Your task to perform on an android device: move a message to another label in the gmail app Image 0: 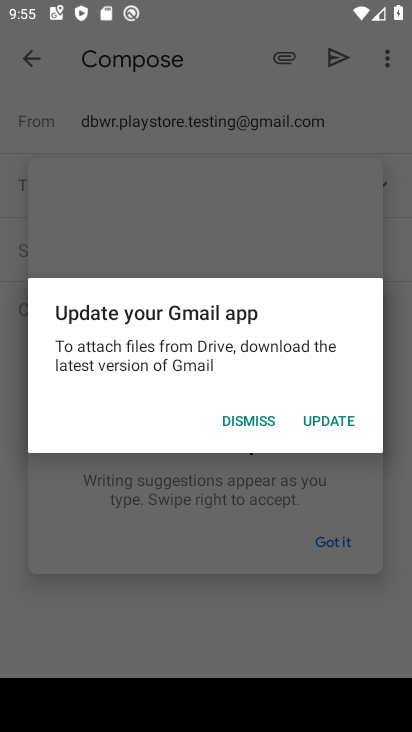
Step 0: press home button
Your task to perform on an android device: move a message to another label in the gmail app Image 1: 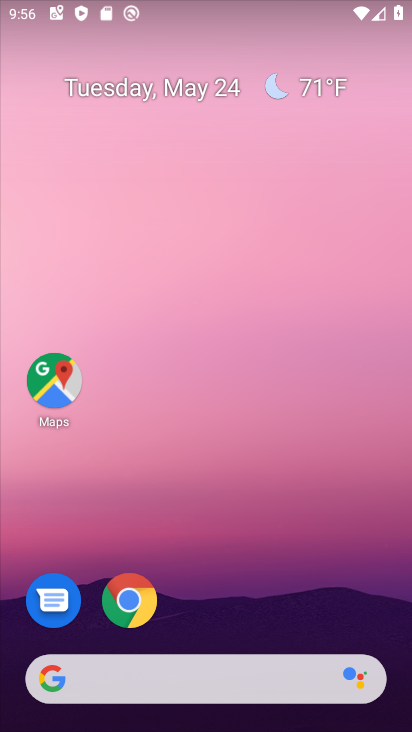
Step 1: drag from (205, 620) to (218, 204)
Your task to perform on an android device: move a message to another label in the gmail app Image 2: 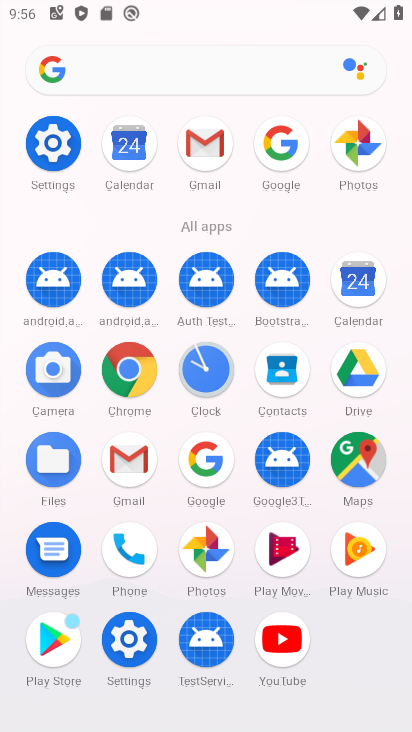
Step 2: click (204, 181)
Your task to perform on an android device: move a message to another label in the gmail app Image 3: 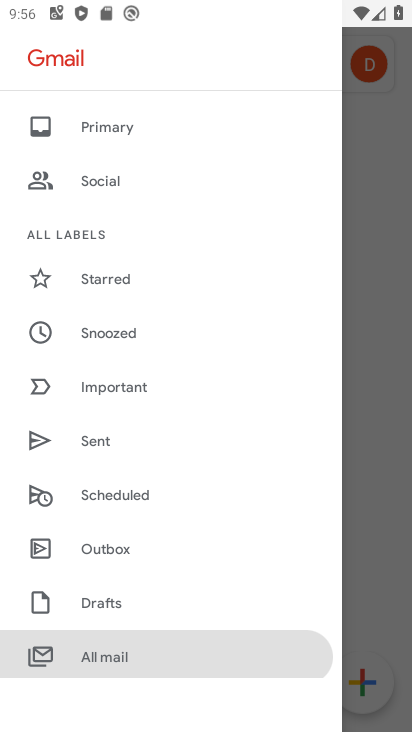
Step 3: click (91, 647)
Your task to perform on an android device: move a message to another label in the gmail app Image 4: 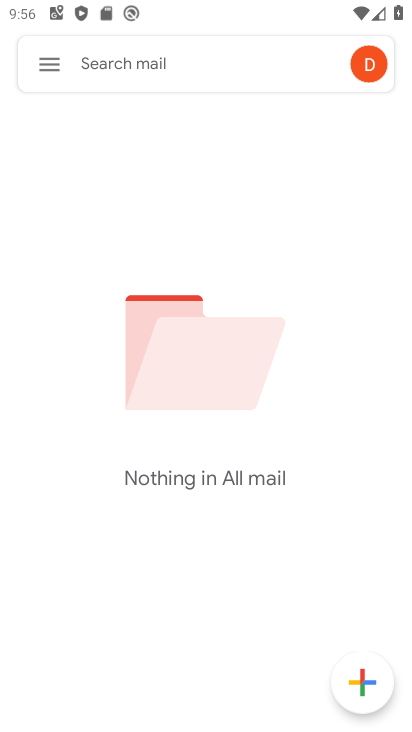
Step 4: click (128, 665)
Your task to perform on an android device: move a message to another label in the gmail app Image 5: 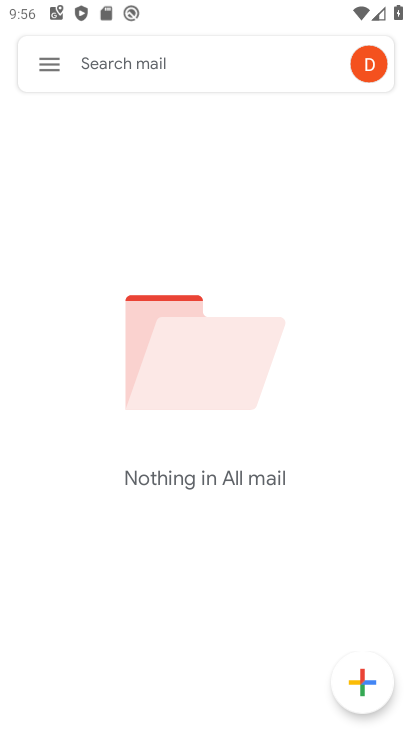
Step 5: task complete